Your task to perform on an android device: Open CNN.com Image 0: 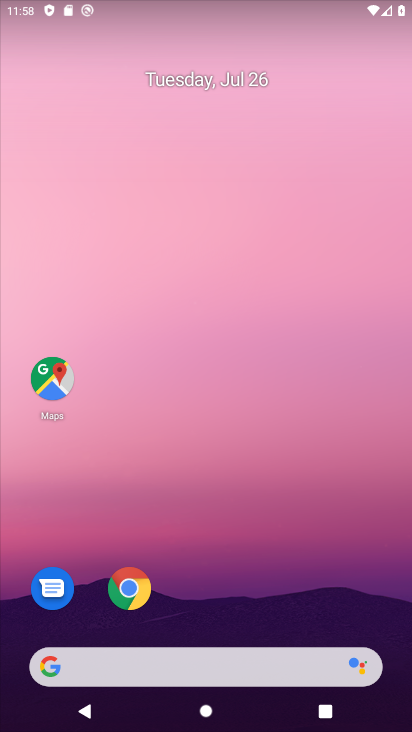
Step 0: click (127, 662)
Your task to perform on an android device: Open CNN.com Image 1: 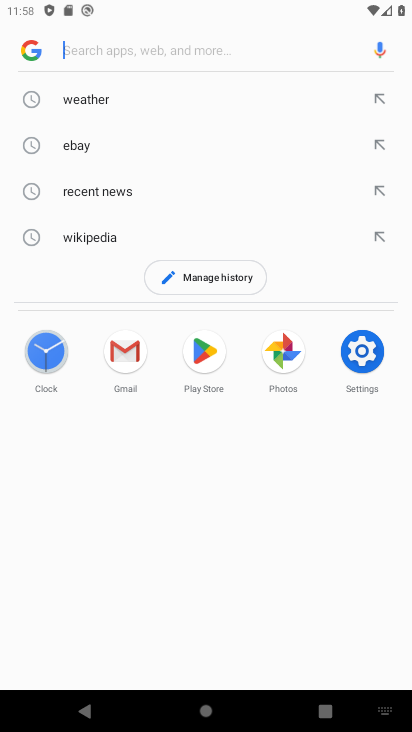
Step 1: type "CNN.com"
Your task to perform on an android device: Open CNN.com Image 2: 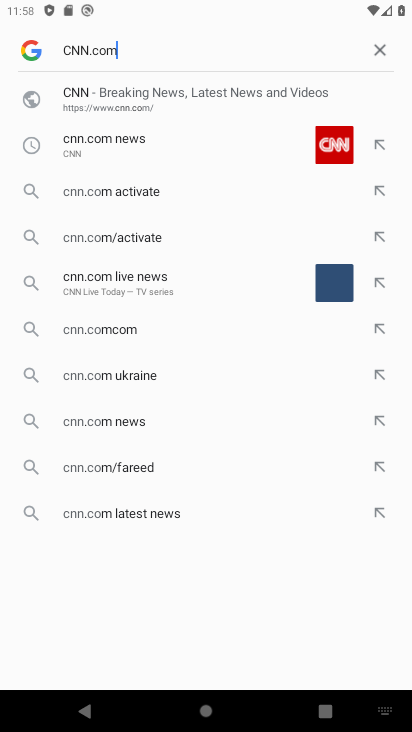
Step 2: type ""
Your task to perform on an android device: Open CNN.com Image 3: 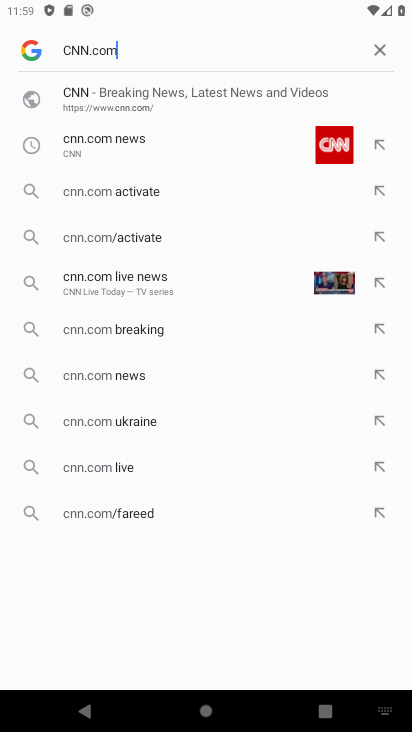
Step 3: click (68, 95)
Your task to perform on an android device: Open CNN.com Image 4: 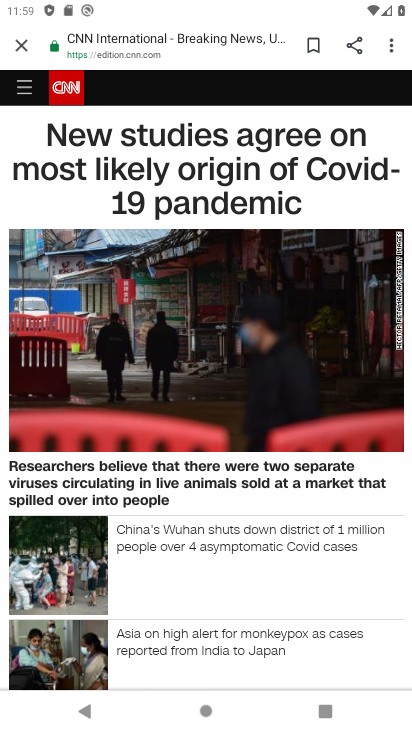
Step 4: task complete